Your task to perform on an android device: What's the weather like in Delhi? Image 0: 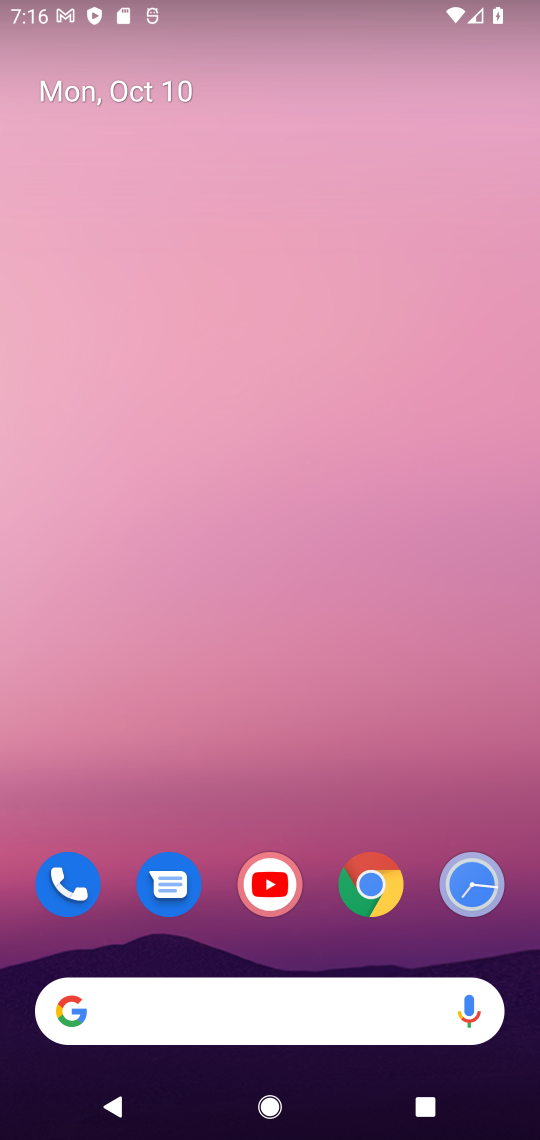
Step 0: click (362, 883)
Your task to perform on an android device: What's the weather like in Delhi? Image 1: 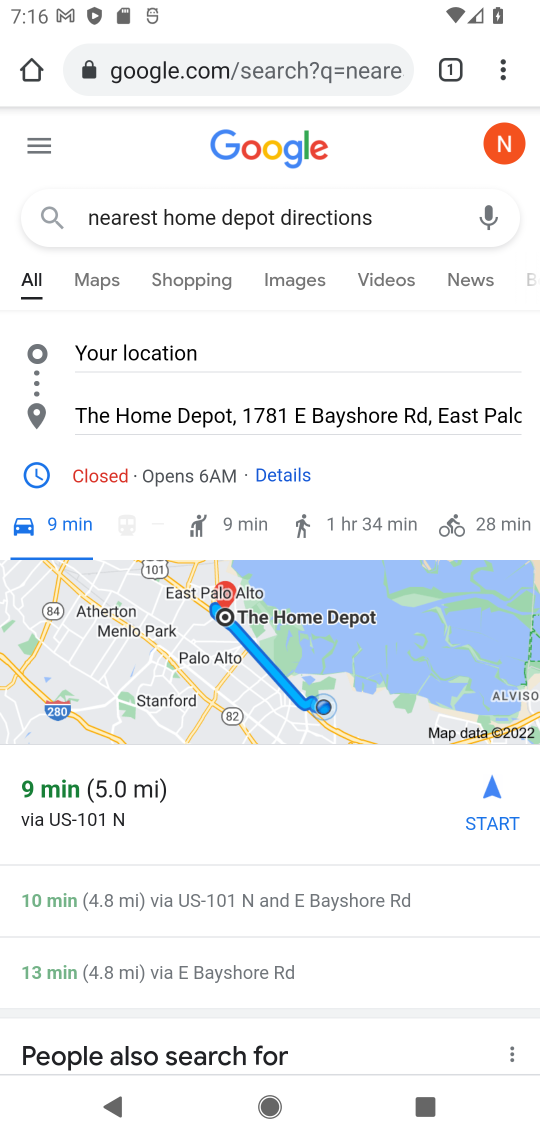
Step 1: click (282, 74)
Your task to perform on an android device: What's the weather like in Delhi? Image 2: 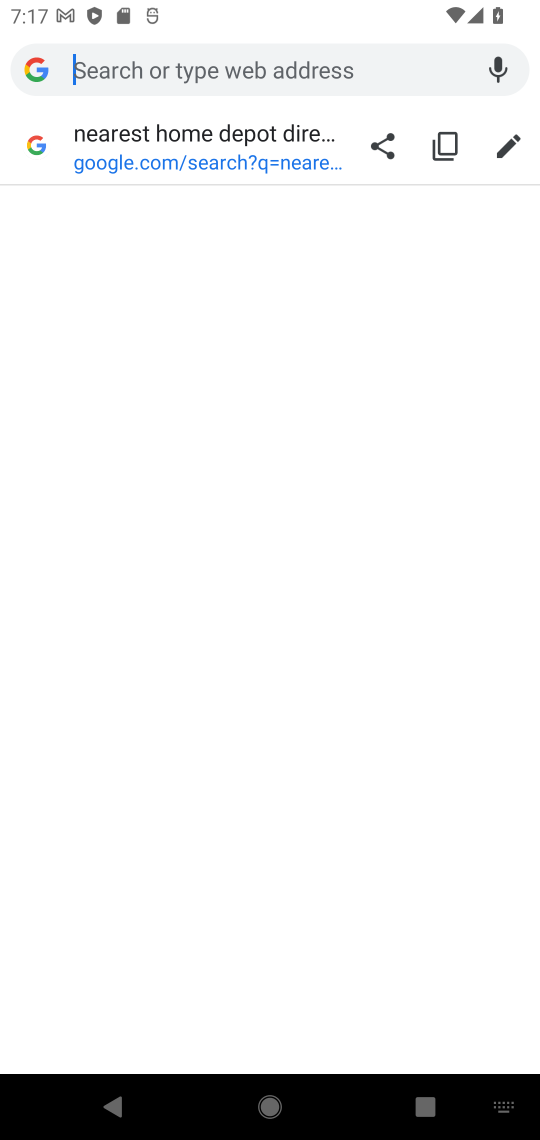
Step 2: type "weather in delhi"
Your task to perform on an android device: What's the weather like in Delhi? Image 3: 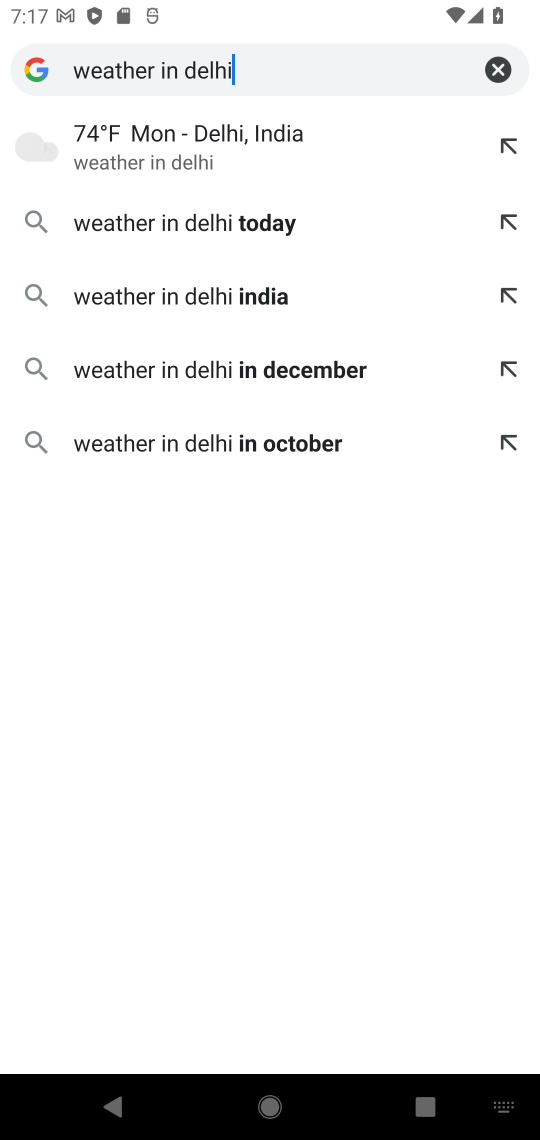
Step 3: click (313, 119)
Your task to perform on an android device: What's the weather like in Delhi? Image 4: 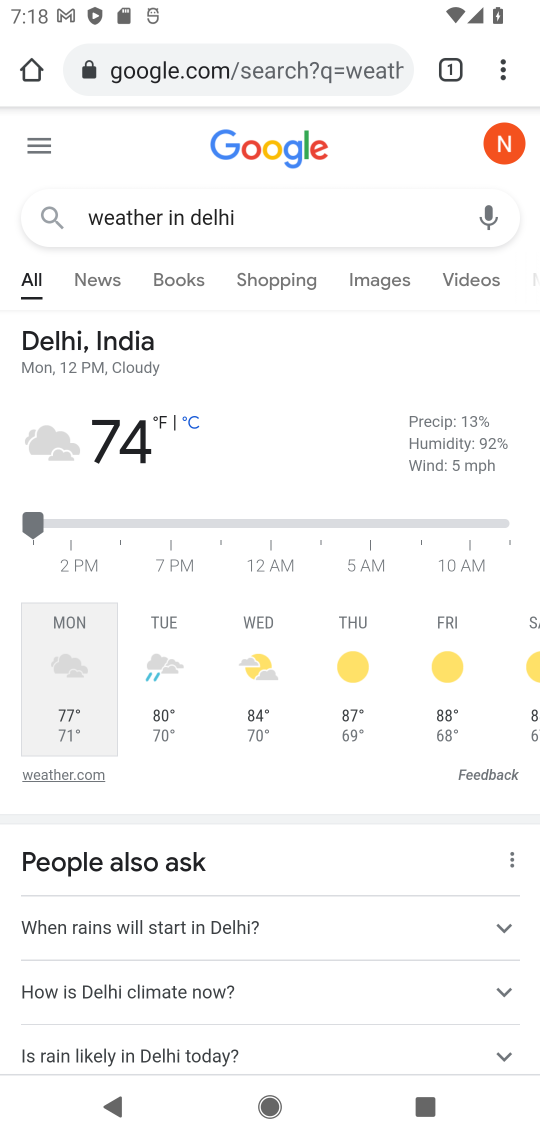
Step 4: task complete